Your task to perform on an android device: Open Youtube and go to "Your channel" Image 0: 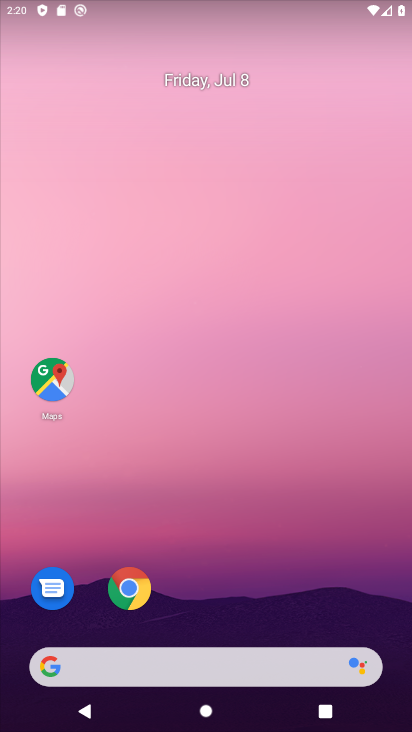
Step 0: drag from (177, 481) to (148, 87)
Your task to perform on an android device: Open Youtube and go to "Your channel" Image 1: 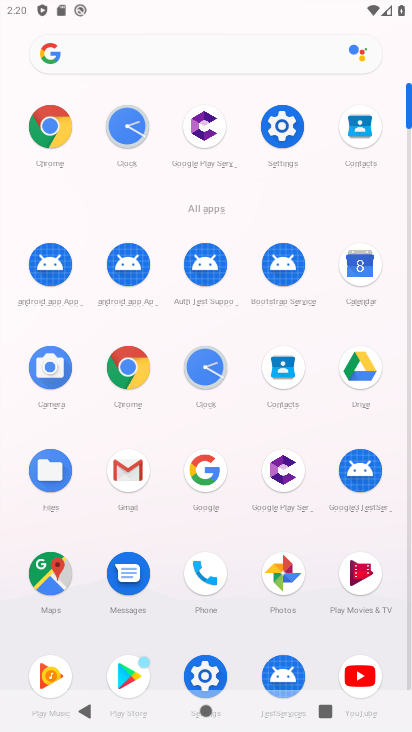
Step 1: click (370, 681)
Your task to perform on an android device: Open Youtube and go to "Your channel" Image 2: 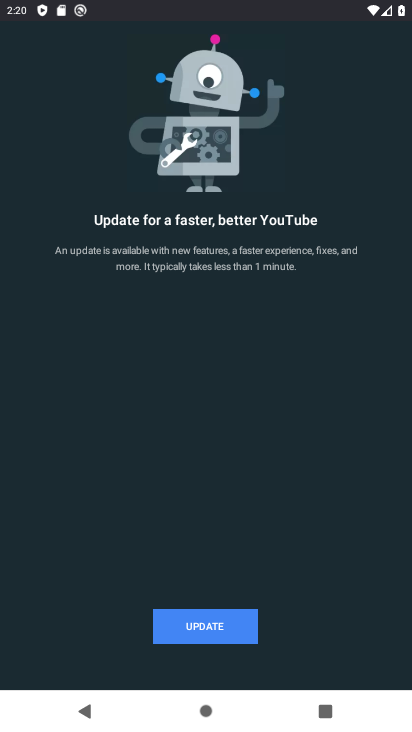
Step 2: click (213, 626)
Your task to perform on an android device: Open Youtube and go to "Your channel" Image 3: 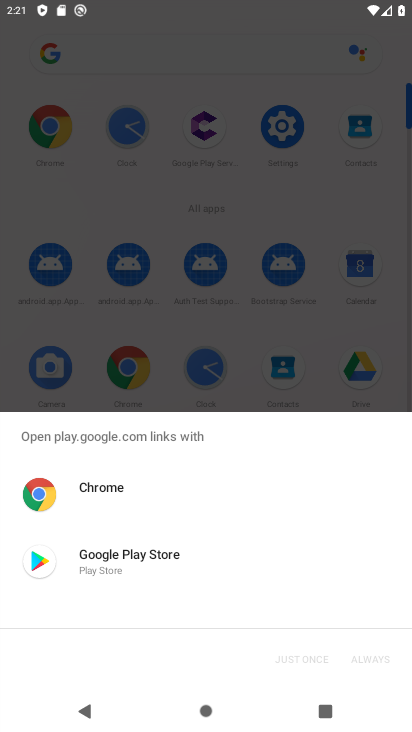
Step 3: click (150, 555)
Your task to perform on an android device: Open Youtube and go to "Your channel" Image 4: 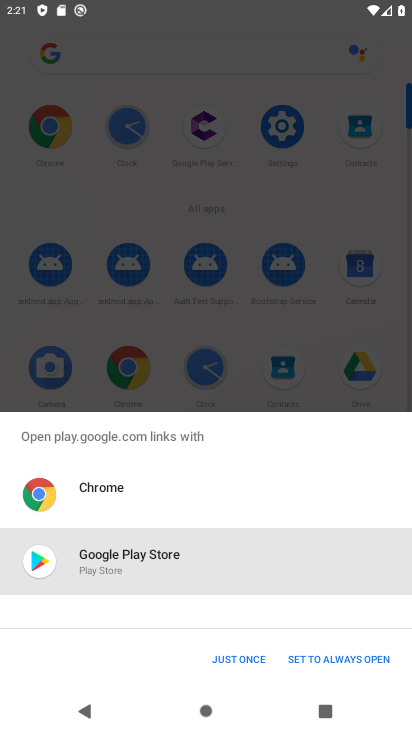
Step 4: click (312, 659)
Your task to perform on an android device: Open Youtube and go to "Your channel" Image 5: 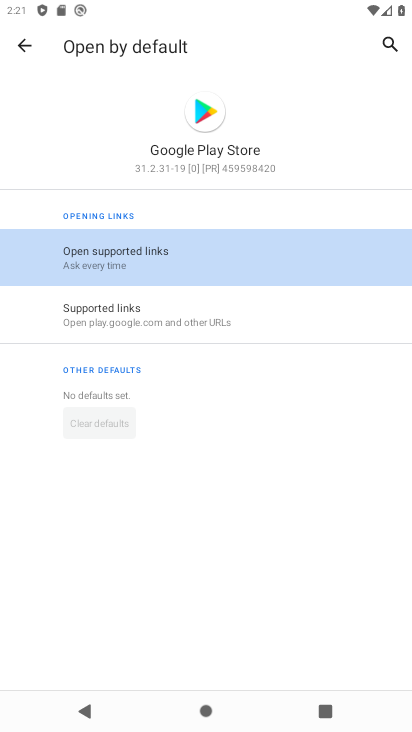
Step 5: click (131, 251)
Your task to perform on an android device: Open Youtube and go to "Your channel" Image 6: 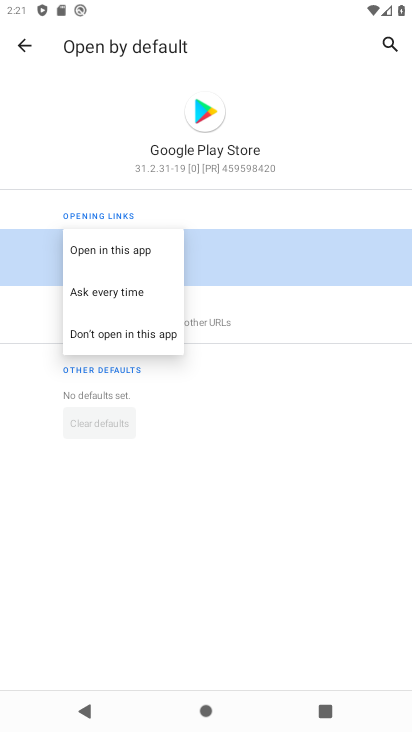
Step 6: click (124, 251)
Your task to perform on an android device: Open Youtube and go to "Your channel" Image 7: 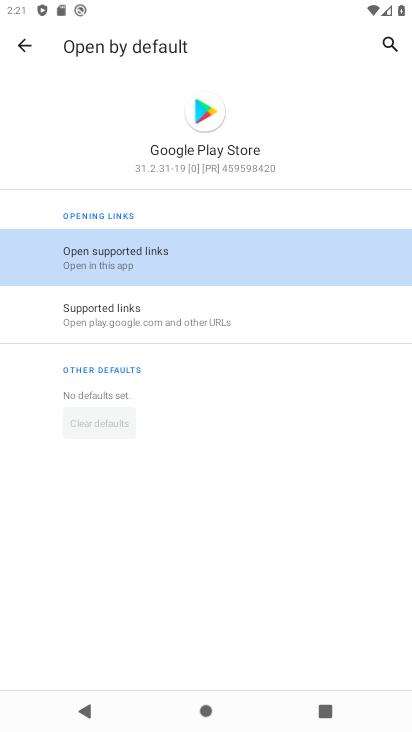
Step 7: click (22, 45)
Your task to perform on an android device: Open Youtube and go to "Your channel" Image 8: 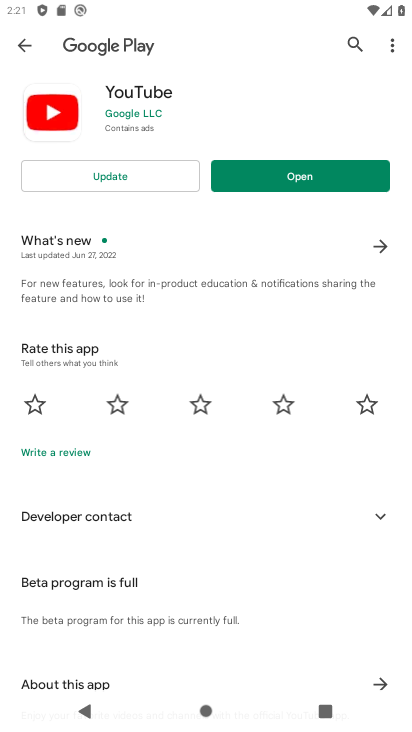
Step 8: click (108, 178)
Your task to perform on an android device: Open Youtube and go to "Your channel" Image 9: 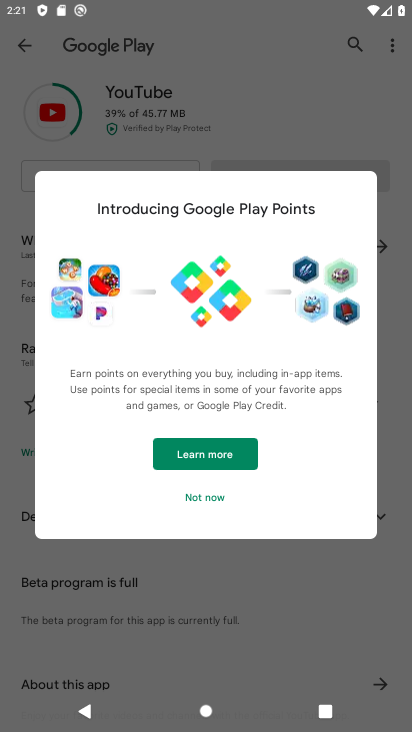
Step 9: click (197, 504)
Your task to perform on an android device: Open Youtube and go to "Your channel" Image 10: 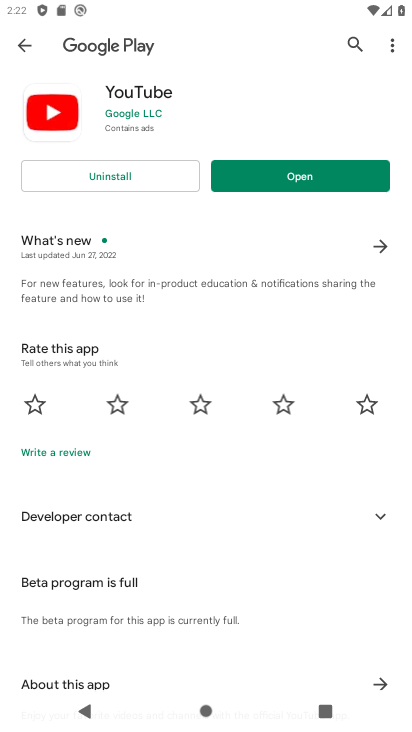
Step 10: click (293, 169)
Your task to perform on an android device: Open Youtube and go to "Your channel" Image 11: 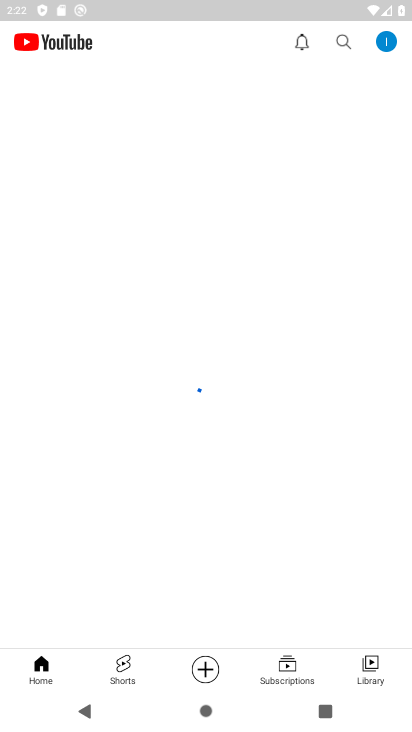
Step 11: click (363, 676)
Your task to perform on an android device: Open Youtube and go to "Your channel" Image 12: 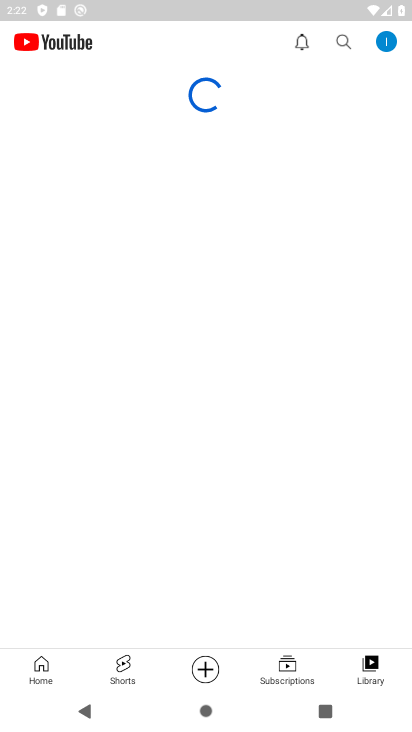
Step 12: click (386, 42)
Your task to perform on an android device: Open Youtube and go to "Your channel" Image 13: 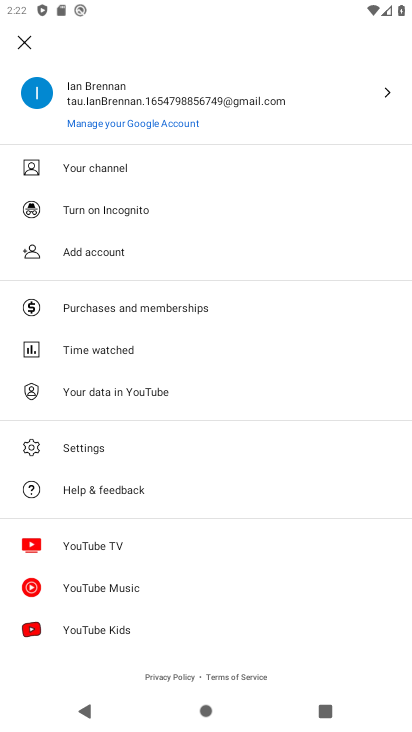
Step 13: click (98, 173)
Your task to perform on an android device: Open Youtube and go to "Your channel" Image 14: 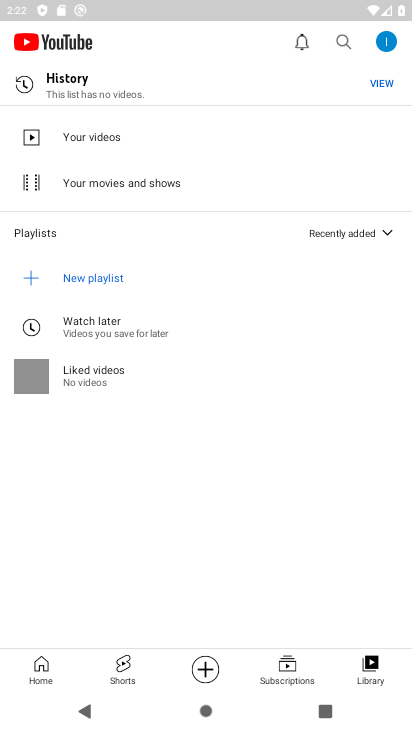
Step 14: click (387, 41)
Your task to perform on an android device: Open Youtube and go to "Your channel" Image 15: 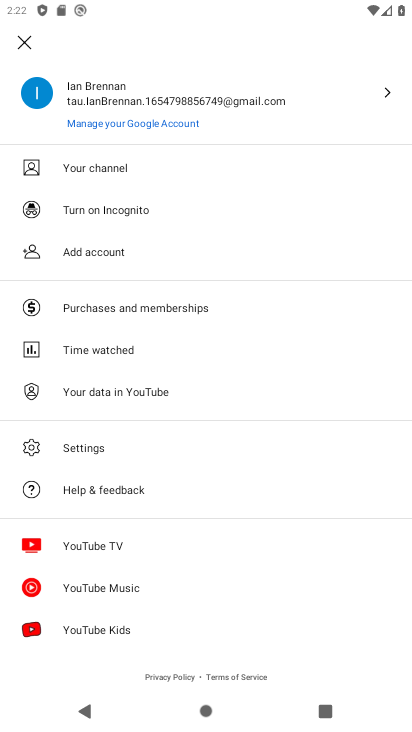
Step 15: click (107, 169)
Your task to perform on an android device: Open Youtube and go to "Your channel" Image 16: 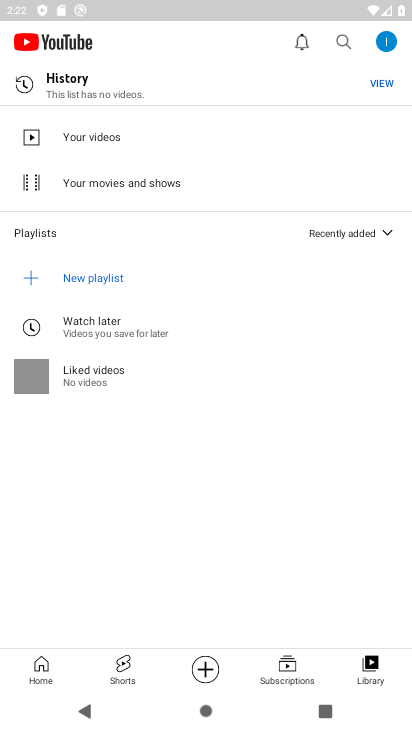
Step 16: click (387, 85)
Your task to perform on an android device: Open Youtube and go to "Your channel" Image 17: 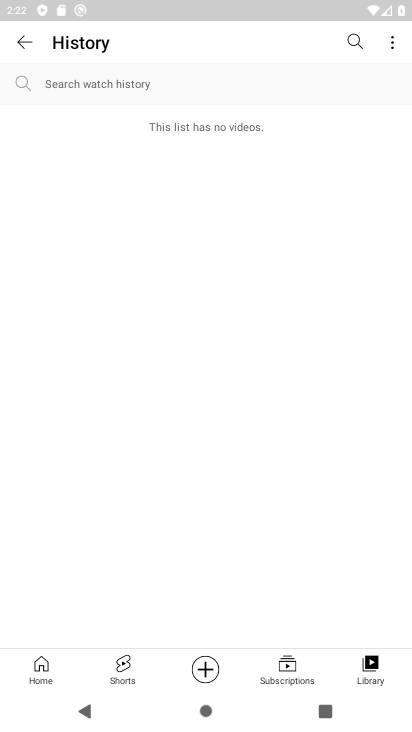
Step 17: task complete